Your task to perform on an android device: Open Chrome and go to the settings page Image 0: 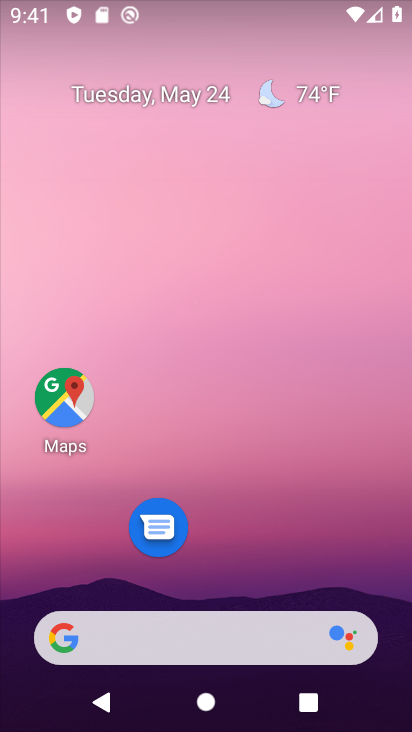
Step 0: drag from (210, 596) to (128, 9)
Your task to perform on an android device: Open Chrome and go to the settings page Image 1: 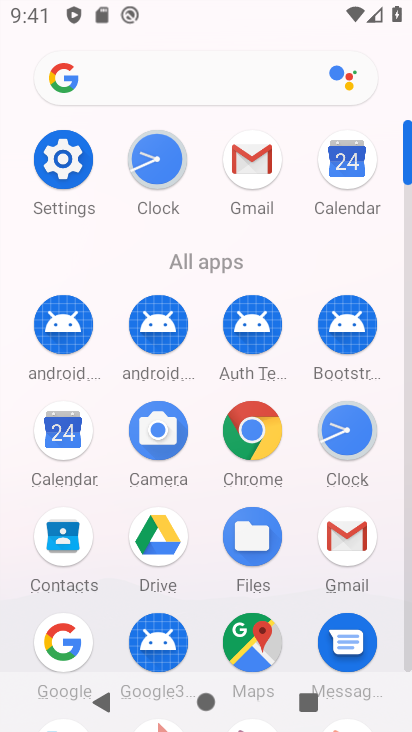
Step 1: click (241, 437)
Your task to perform on an android device: Open Chrome and go to the settings page Image 2: 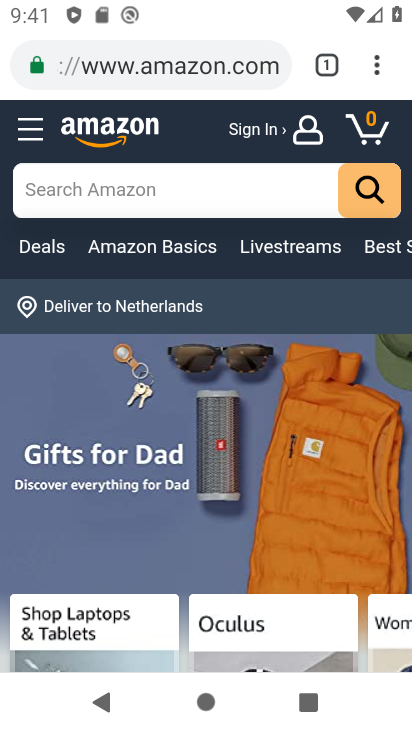
Step 2: click (371, 73)
Your task to perform on an android device: Open Chrome and go to the settings page Image 3: 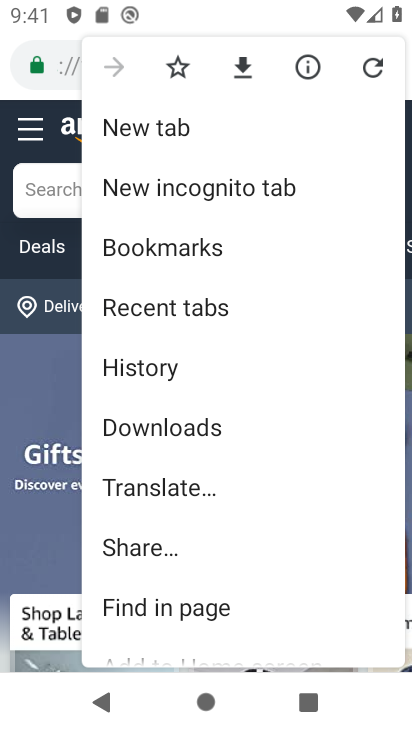
Step 3: drag from (162, 531) to (160, 133)
Your task to perform on an android device: Open Chrome and go to the settings page Image 4: 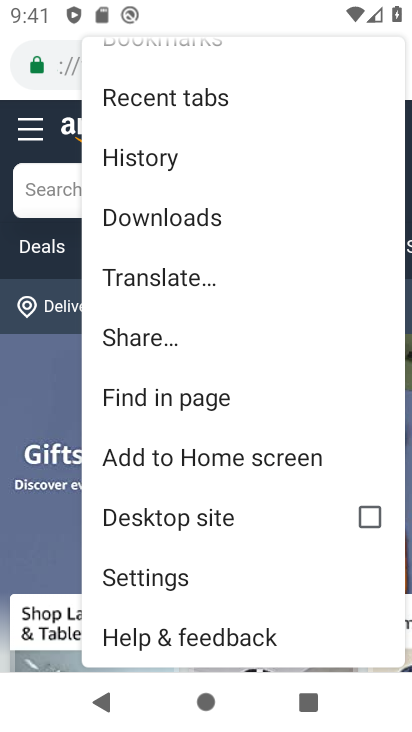
Step 4: click (134, 575)
Your task to perform on an android device: Open Chrome and go to the settings page Image 5: 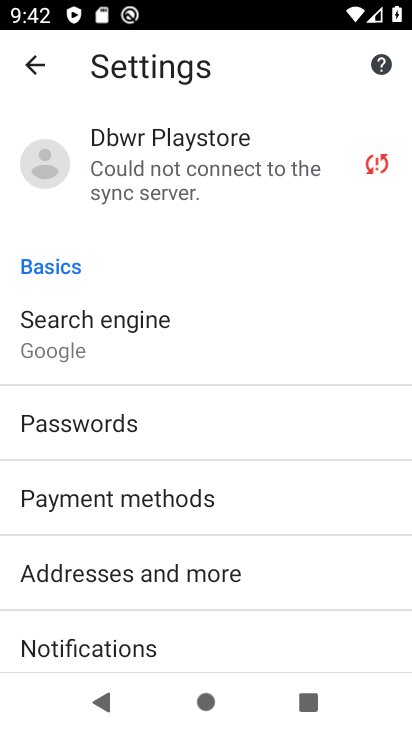
Step 5: task complete